Your task to perform on an android device: turn on the 12-hour format for clock Image 0: 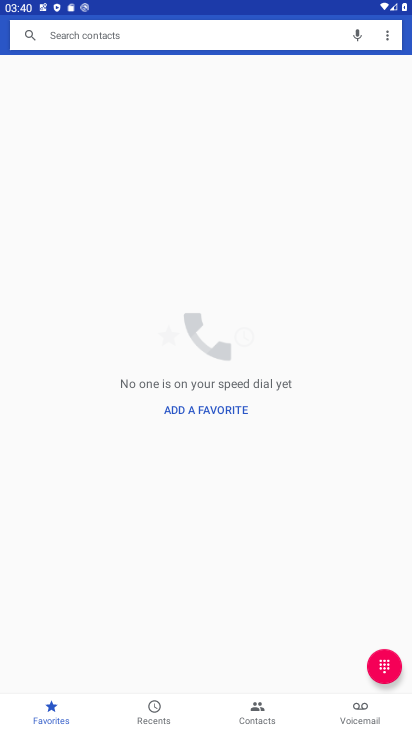
Step 0: press home button
Your task to perform on an android device: turn on the 12-hour format for clock Image 1: 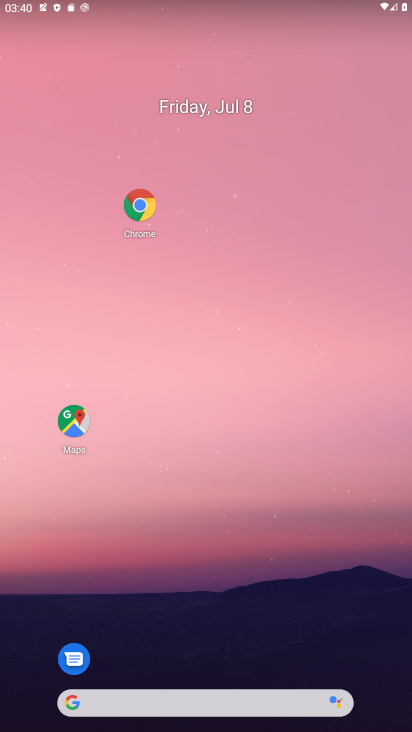
Step 1: drag from (175, 653) to (183, 228)
Your task to perform on an android device: turn on the 12-hour format for clock Image 2: 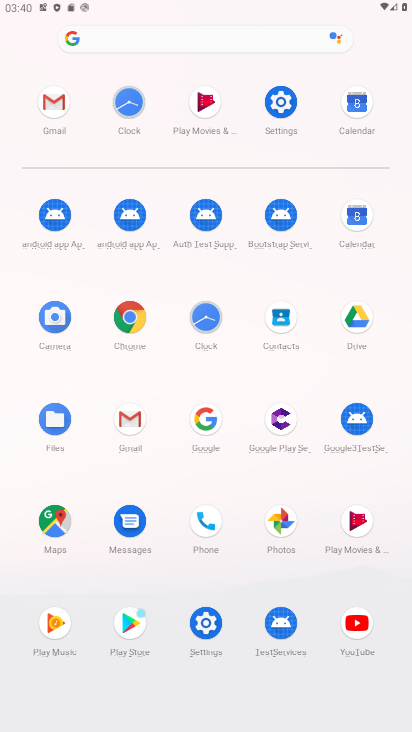
Step 2: click (213, 309)
Your task to perform on an android device: turn on the 12-hour format for clock Image 3: 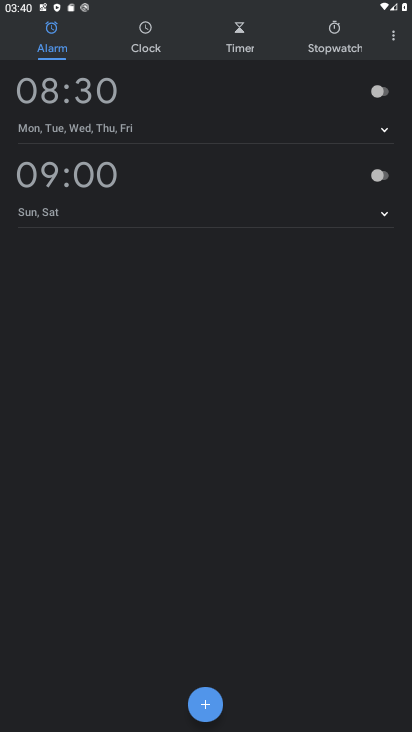
Step 3: click (385, 29)
Your task to perform on an android device: turn on the 12-hour format for clock Image 4: 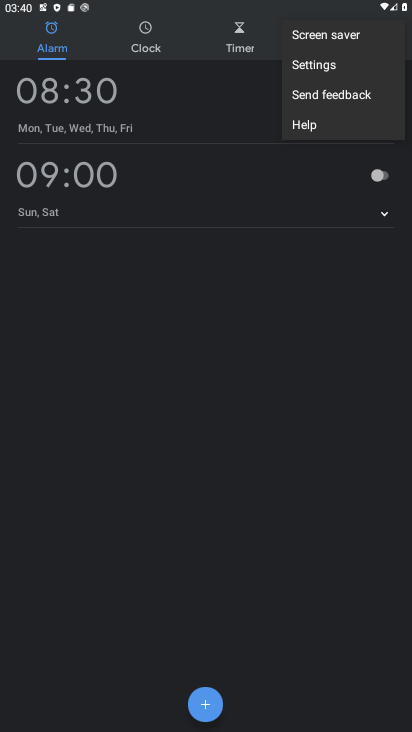
Step 4: click (345, 72)
Your task to perform on an android device: turn on the 12-hour format for clock Image 5: 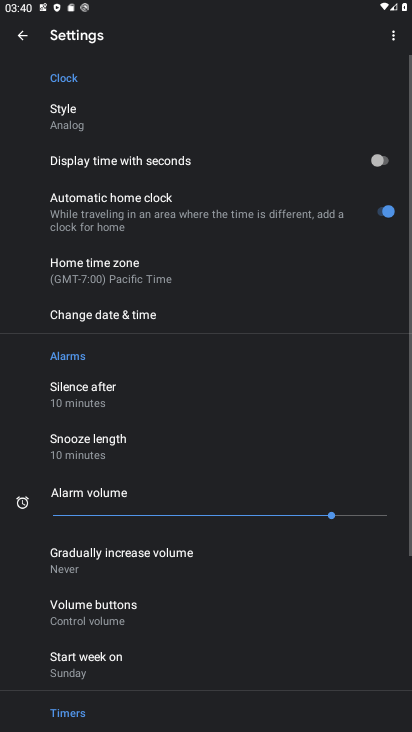
Step 5: click (82, 308)
Your task to perform on an android device: turn on the 12-hour format for clock Image 6: 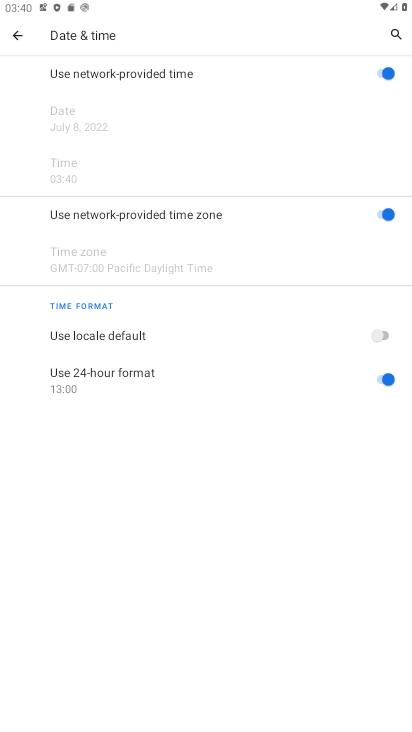
Step 6: click (383, 337)
Your task to perform on an android device: turn on the 12-hour format for clock Image 7: 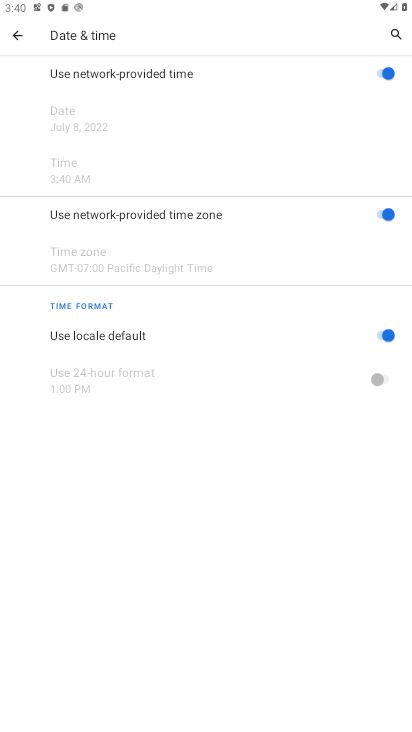
Step 7: task complete